Your task to perform on an android device: set default search engine in the chrome app Image 0: 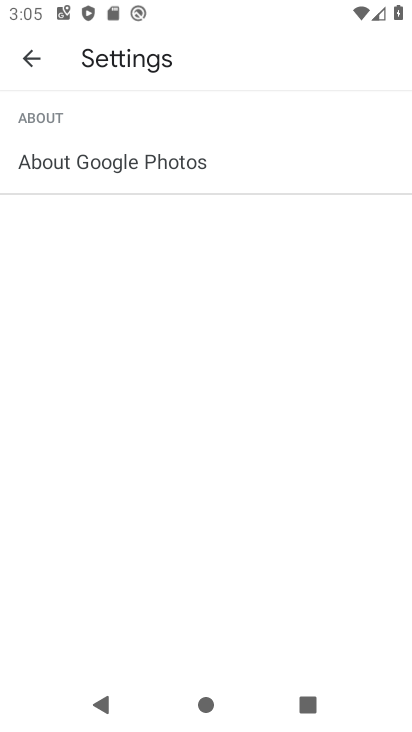
Step 0: press home button
Your task to perform on an android device: set default search engine in the chrome app Image 1: 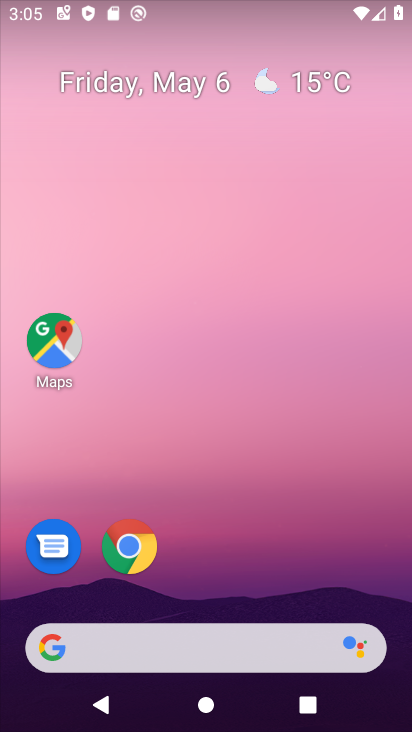
Step 1: click (122, 562)
Your task to perform on an android device: set default search engine in the chrome app Image 2: 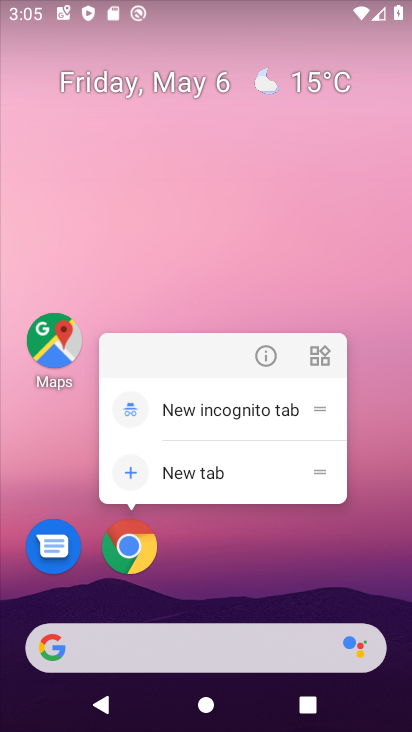
Step 2: click (122, 562)
Your task to perform on an android device: set default search engine in the chrome app Image 3: 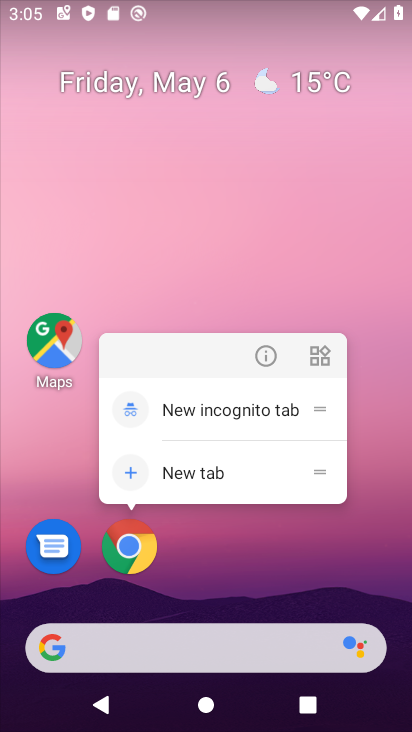
Step 3: click (123, 546)
Your task to perform on an android device: set default search engine in the chrome app Image 4: 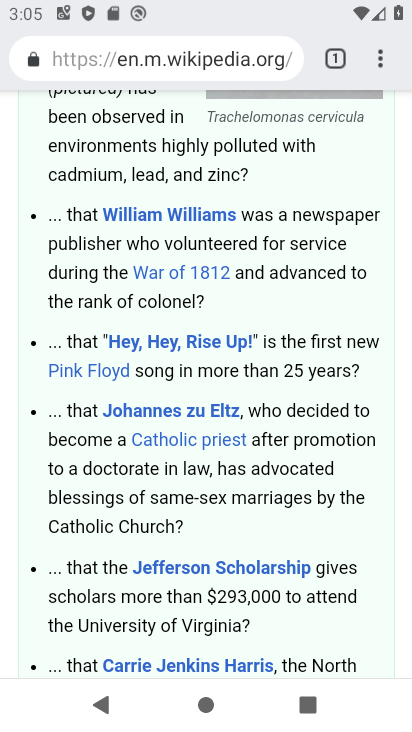
Step 4: click (380, 62)
Your task to perform on an android device: set default search engine in the chrome app Image 5: 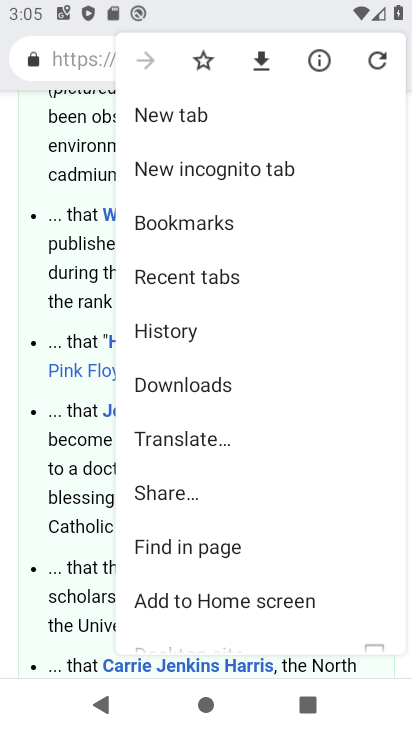
Step 5: drag from (183, 570) to (189, 223)
Your task to perform on an android device: set default search engine in the chrome app Image 6: 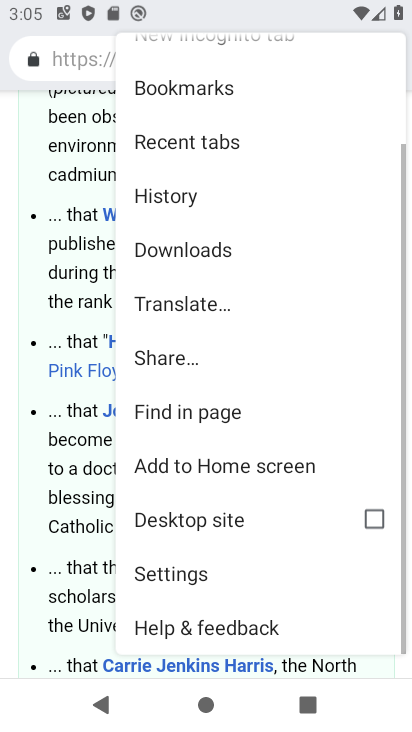
Step 6: click (169, 571)
Your task to perform on an android device: set default search engine in the chrome app Image 7: 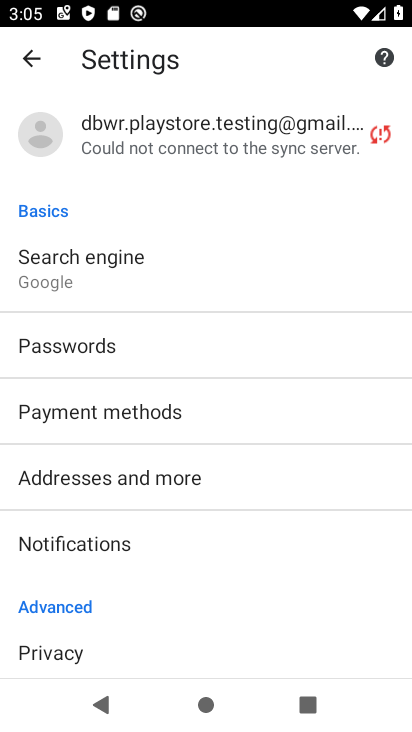
Step 7: click (87, 266)
Your task to perform on an android device: set default search engine in the chrome app Image 8: 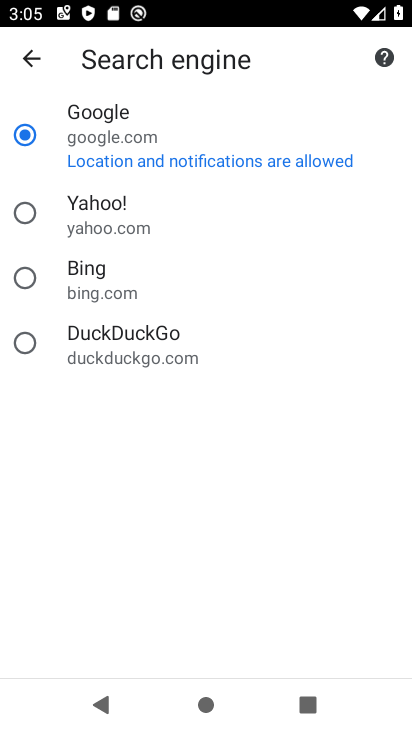
Step 8: task complete